Your task to perform on an android device: Go to display settings Image 0: 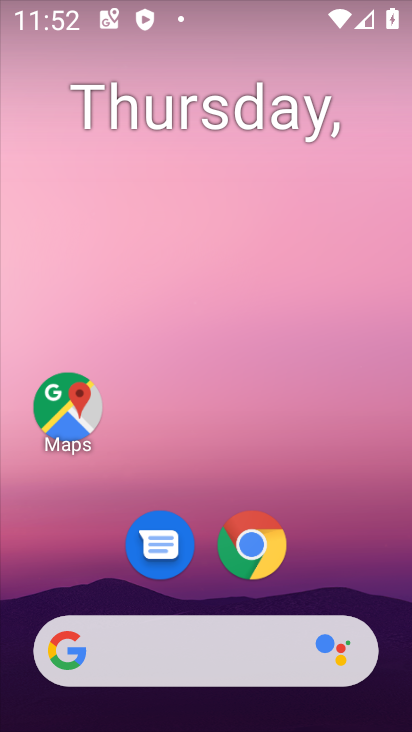
Step 0: drag from (351, 562) to (292, 249)
Your task to perform on an android device: Go to display settings Image 1: 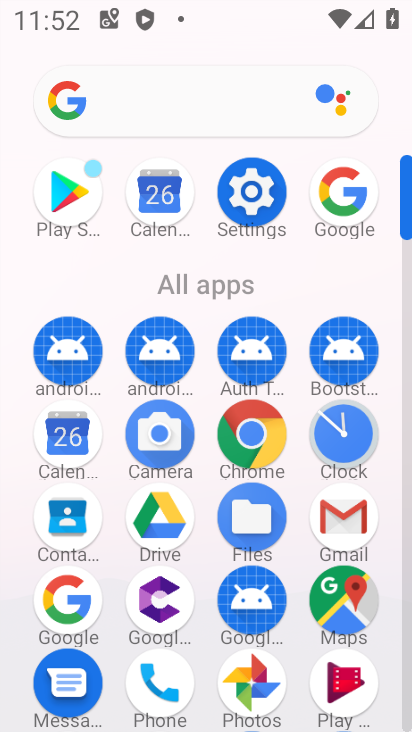
Step 1: click (240, 186)
Your task to perform on an android device: Go to display settings Image 2: 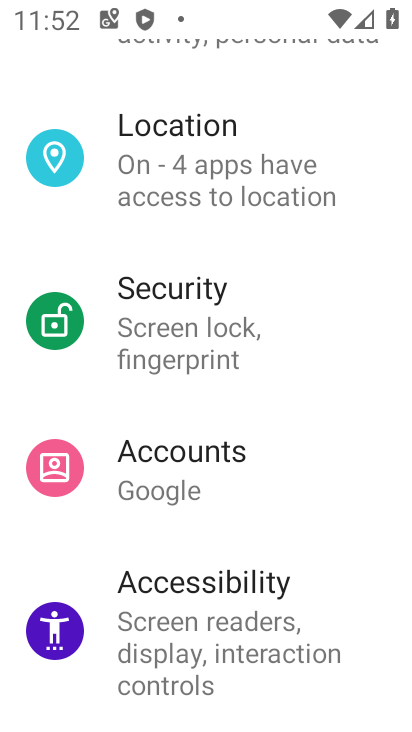
Step 2: drag from (231, 205) to (281, 525)
Your task to perform on an android device: Go to display settings Image 3: 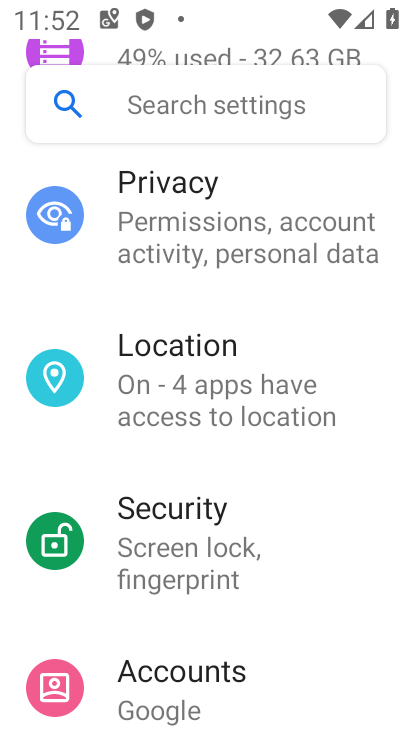
Step 3: drag from (244, 278) to (273, 606)
Your task to perform on an android device: Go to display settings Image 4: 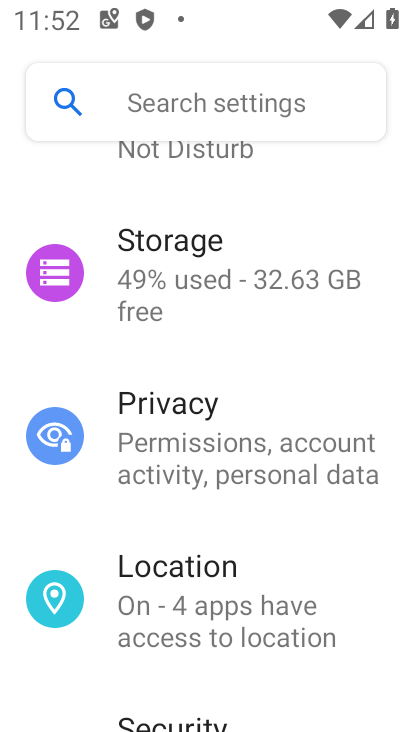
Step 4: drag from (197, 239) to (257, 496)
Your task to perform on an android device: Go to display settings Image 5: 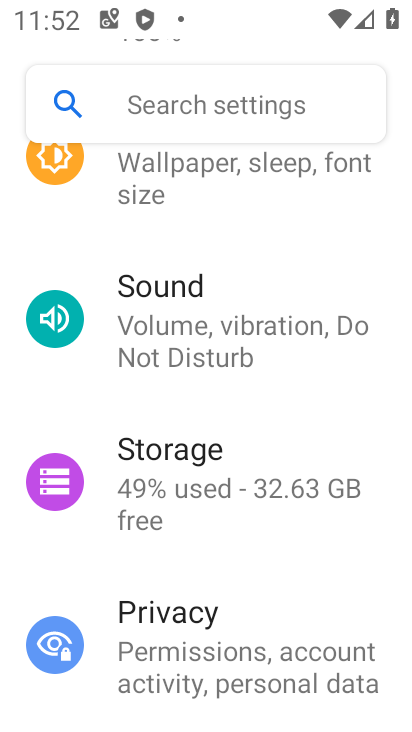
Step 5: drag from (207, 260) to (220, 422)
Your task to perform on an android device: Go to display settings Image 6: 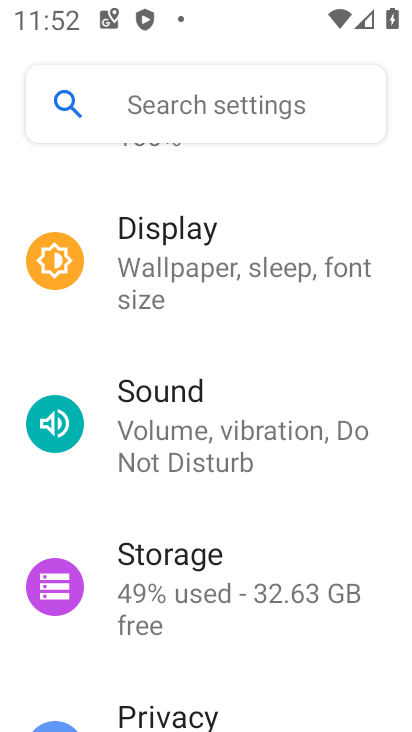
Step 6: click (274, 246)
Your task to perform on an android device: Go to display settings Image 7: 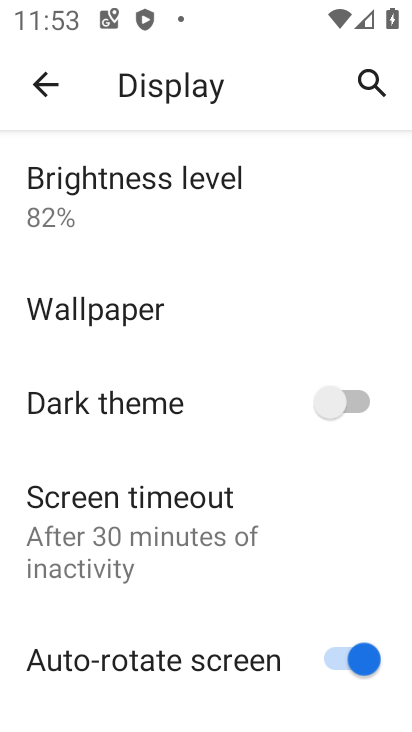
Step 7: task complete